Your task to perform on an android device: stop showing notifications on the lock screen Image 0: 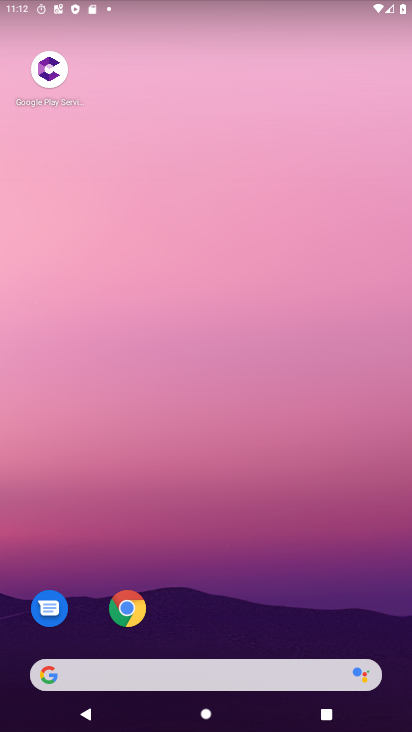
Step 0: drag from (231, 724) to (171, 118)
Your task to perform on an android device: stop showing notifications on the lock screen Image 1: 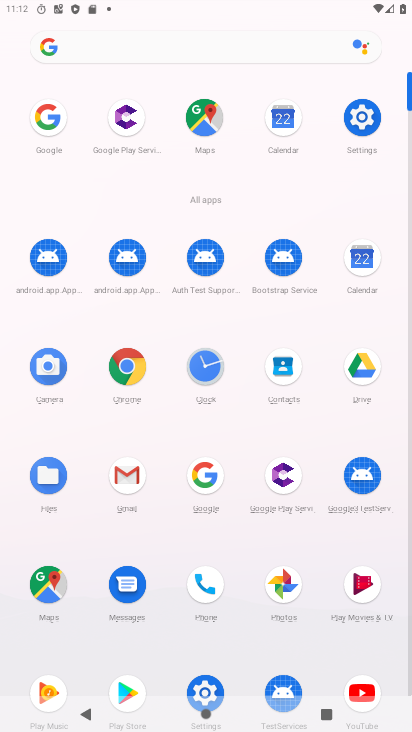
Step 1: click (367, 113)
Your task to perform on an android device: stop showing notifications on the lock screen Image 2: 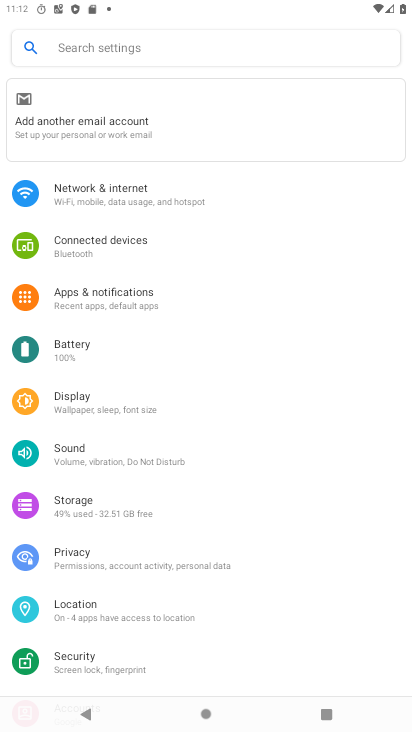
Step 2: click (132, 296)
Your task to perform on an android device: stop showing notifications on the lock screen Image 3: 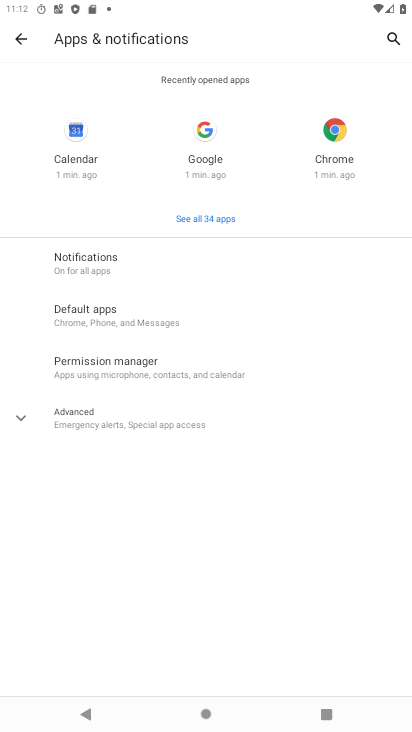
Step 3: click (89, 265)
Your task to perform on an android device: stop showing notifications on the lock screen Image 4: 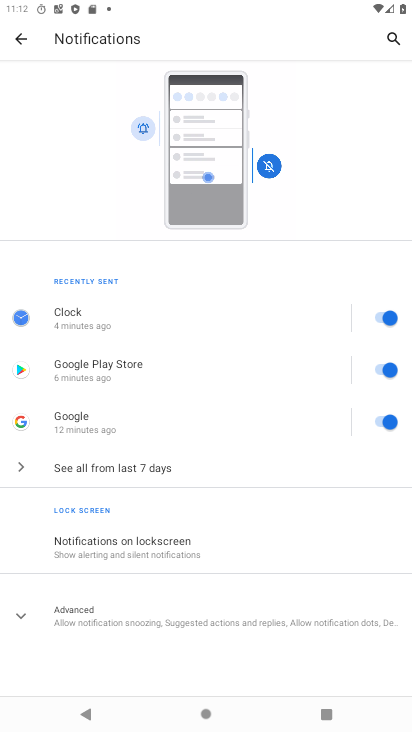
Step 4: click (105, 543)
Your task to perform on an android device: stop showing notifications on the lock screen Image 5: 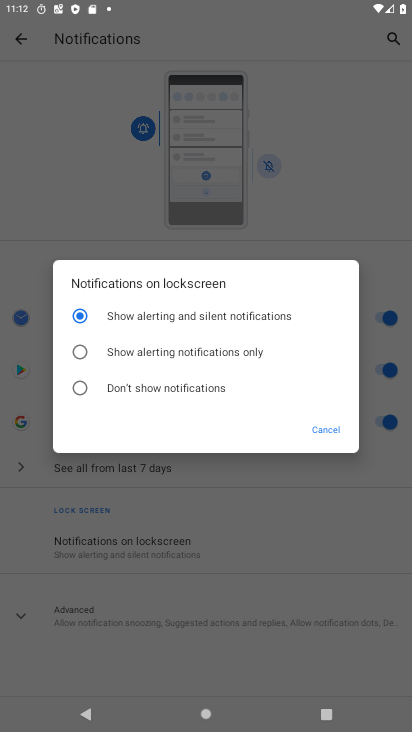
Step 5: click (78, 386)
Your task to perform on an android device: stop showing notifications on the lock screen Image 6: 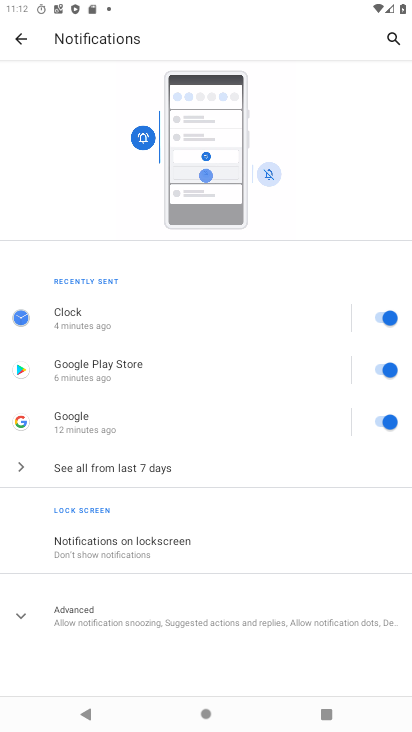
Step 6: task complete